Your task to perform on an android device: toggle improve location accuracy Image 0: 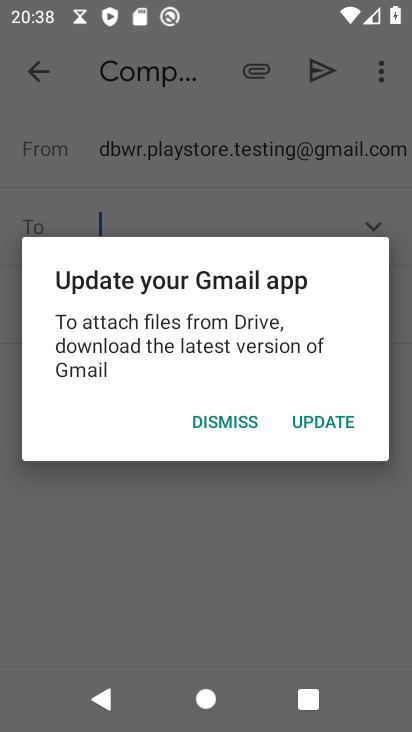
Step 0: press back button
Your task to perform on an android device: toggle improve location accuracy Image 1: 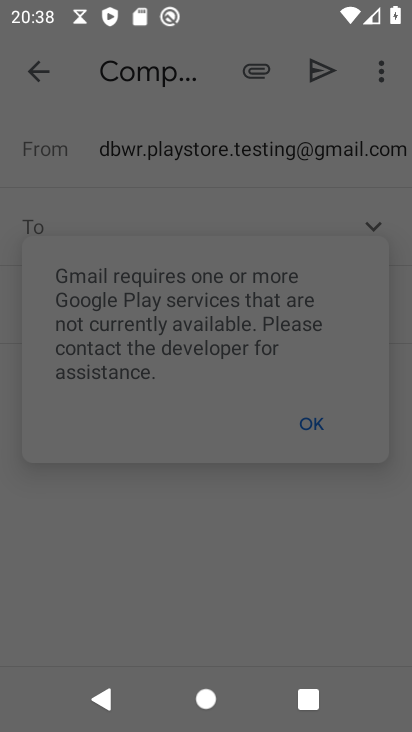
Step 1: press back button
Your task to perform on an android device: toggle improve location accuracy Image 2: 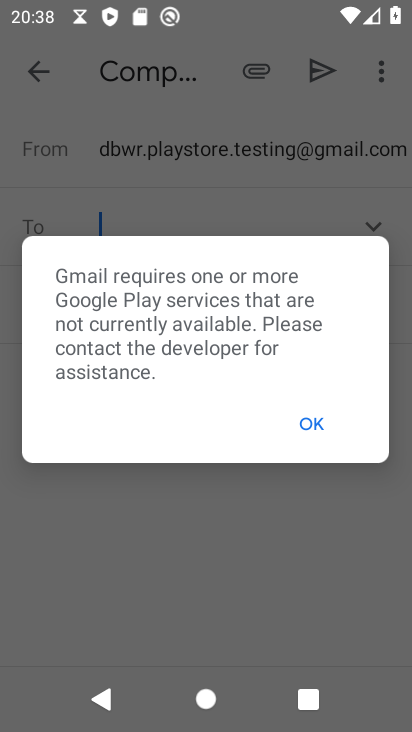
Step 2: click (303, 421)
Your task to perform on an android device: toggle improve location accuracy Image 3: 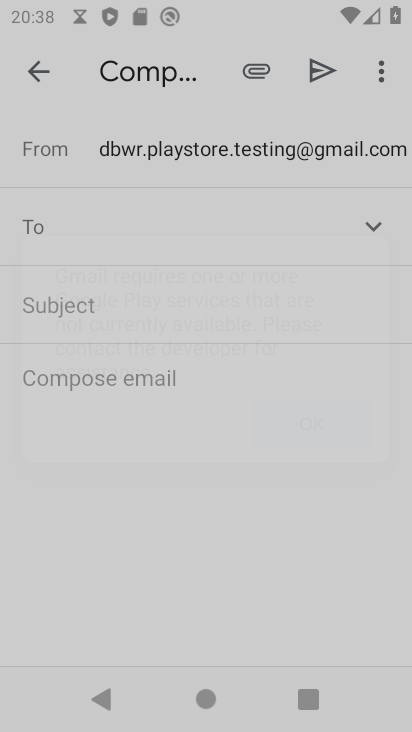
Step 3: press back button
Your task to perform on an android device: toggle improve location accuracy Image 4: 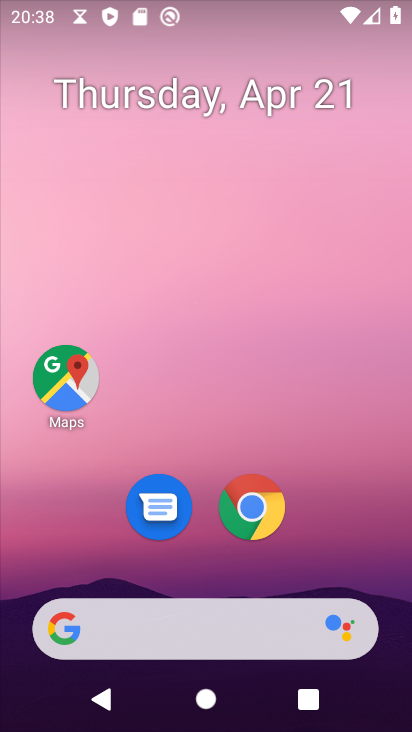
Step 4: drag from (222, 535) to (331, 23)
Your task to perform on an android device: toggle improve location accuracy Image 5: 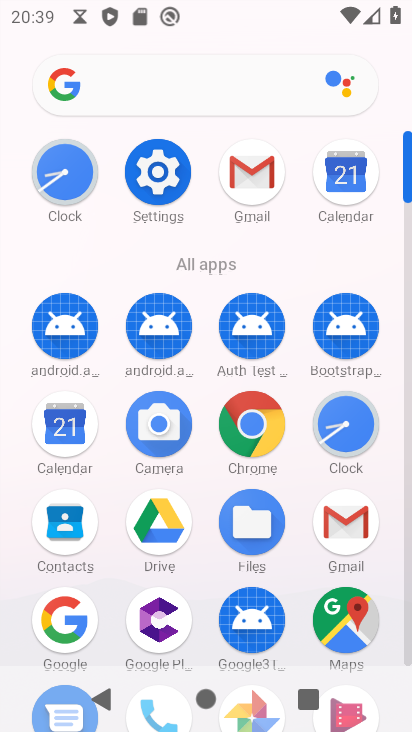
Step 5: click (164, 166)
Your task to perform on an android device: toggle improve location accuracy Image 6: 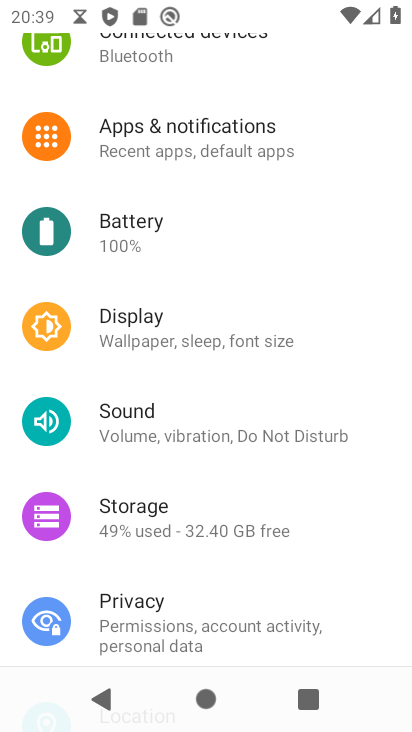
Step 6: drag from (188, 549) to (286, 37)
Your task to perform on an android device: toggle improve location accuracy Image 7: 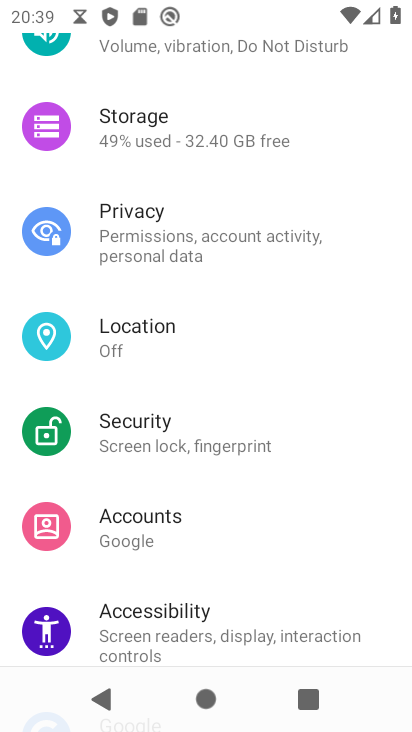
Step 7: click (180, 330)
Your task to perform on an android device: toggle improve location accuracy Image 8: 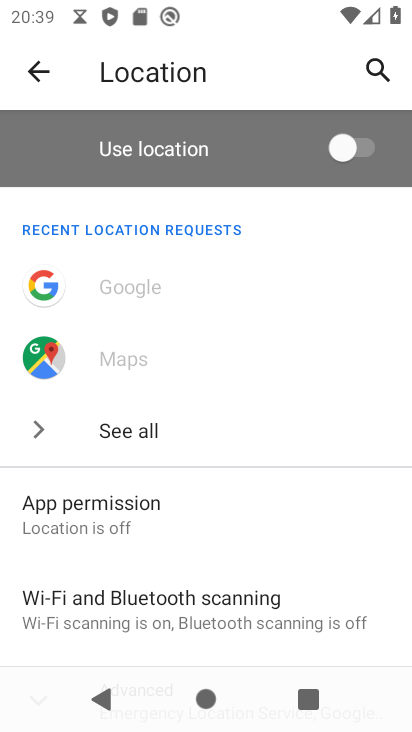
Step 8: drag from (148, 552) to (272, 12)
Your task to perform on an android device: toggle improve location accuracy Image 9: 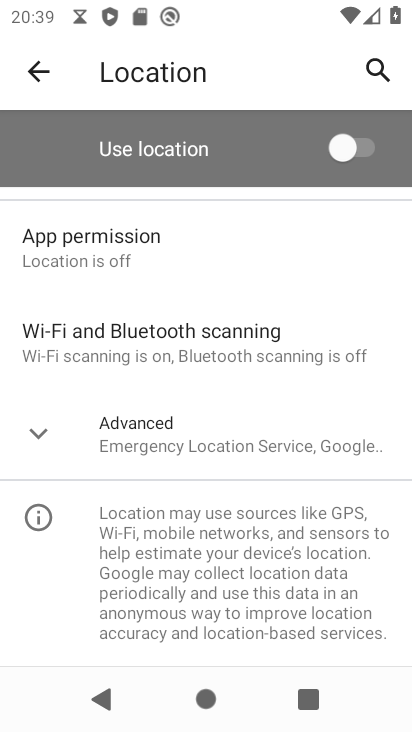
Step 9: click (157, 438)
Your task to perform on an android device: toggle improve location accuracy Image 10: 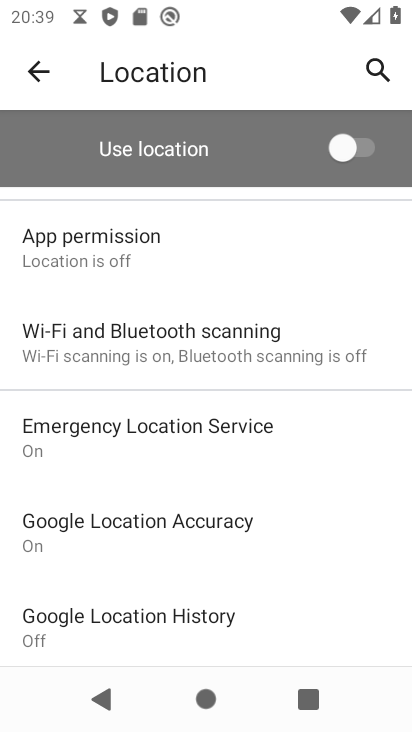
Step 10: click (140, 520)
Your task to perform on an android device: toggle improve location accuracy Image 11: 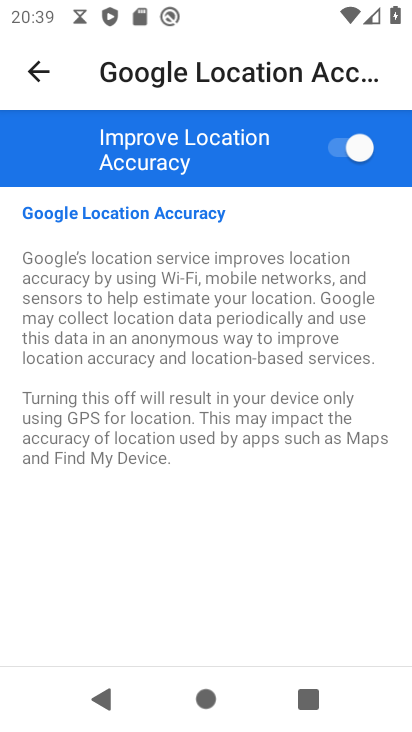
Step 11: click (366, 146)
Your task to perform on an android device: toggle improve location accuracy Image 12: 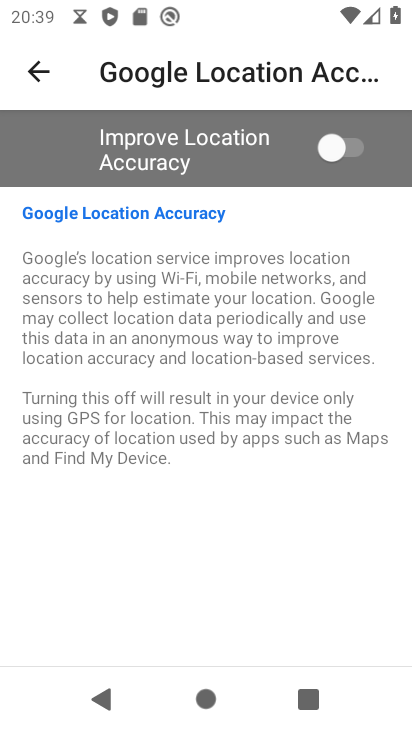
Step 12: task complete